Your task to perform on an android device: see tabs open on other devices in the chrome app Image 0: 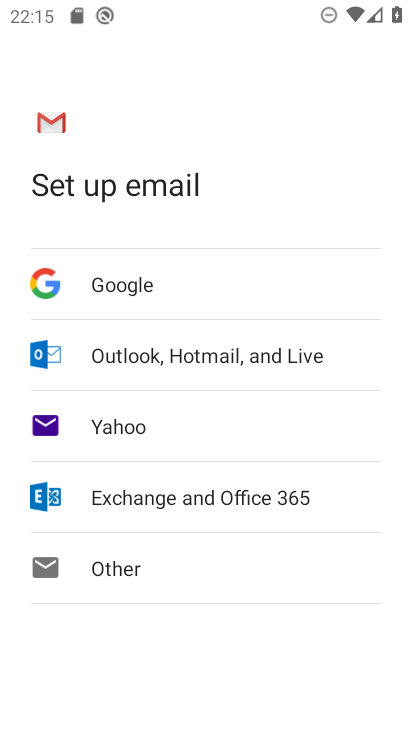
Step 0: press home button
Your task to perform on an android device: see tabs open on other devices in the chrome app Image 1: 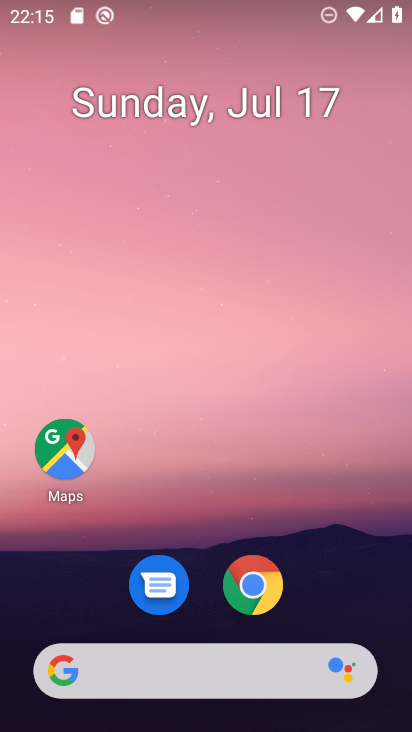
Step 1: click (253, 588)
Your task to perform on an android device: see tabs open on other devices in the chrome app Image 2: 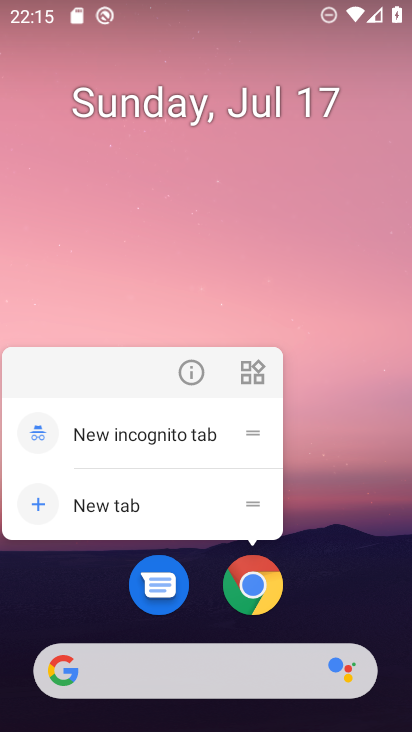
Step 2: click (253, 589)
Your task to perform on an android device: see tabs open on other devices in the chrome app Image 3: 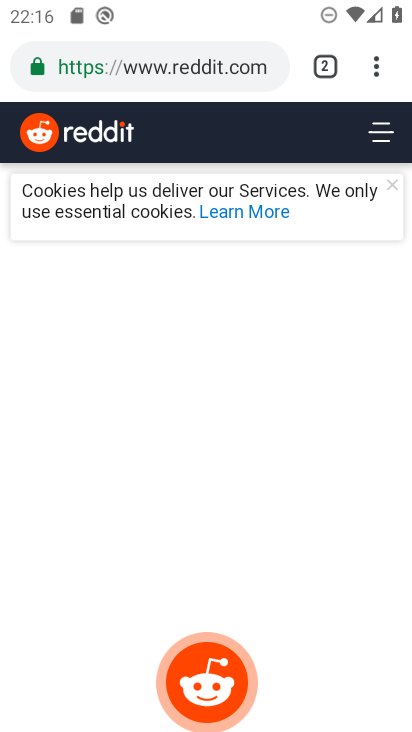
Step 3: task complete